Your task to perform on an android device: find which apps use the phone's location Image 0: 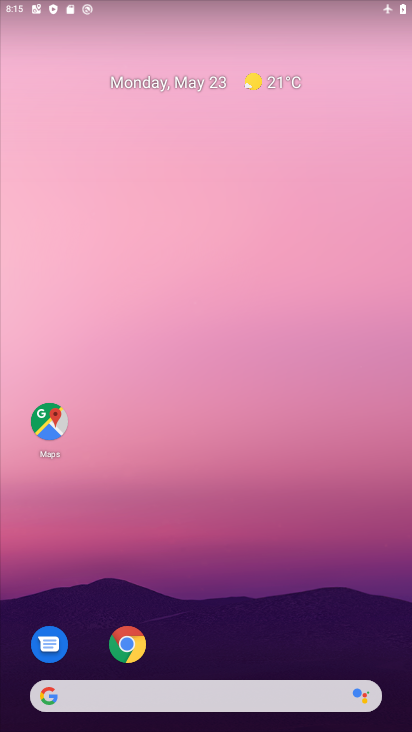
Step 0: drag from (97, 700) to (151, 82)
Your task to perform on an android device: find which apps use the phone's location Image 1: 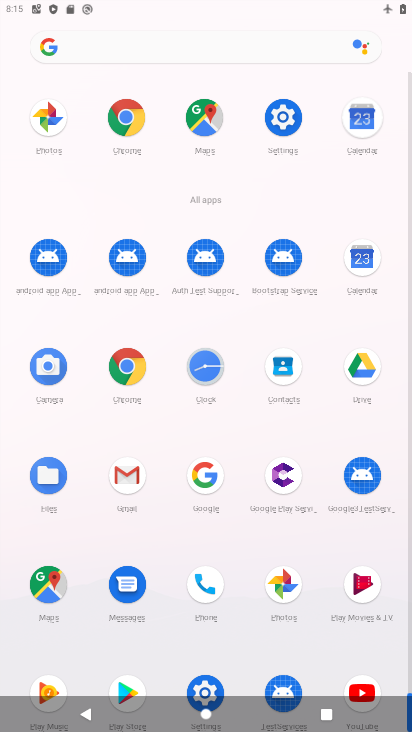
Step 1: click (284, 114)
Your task to perform on an android device: find which apps use the phone's location Image 2: 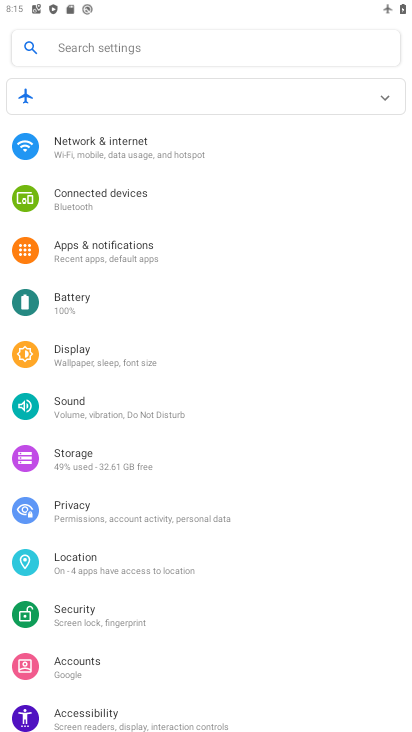
Step 2: click (136, 569)
Your task to perform on an android device: find which apps use the phone's location Image 3: 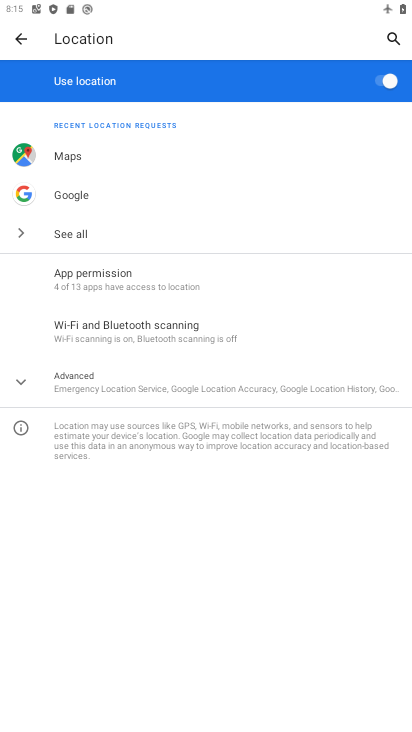
Step 3: task complete